Your task to perform on an android device: Go to notification settings Image 0: 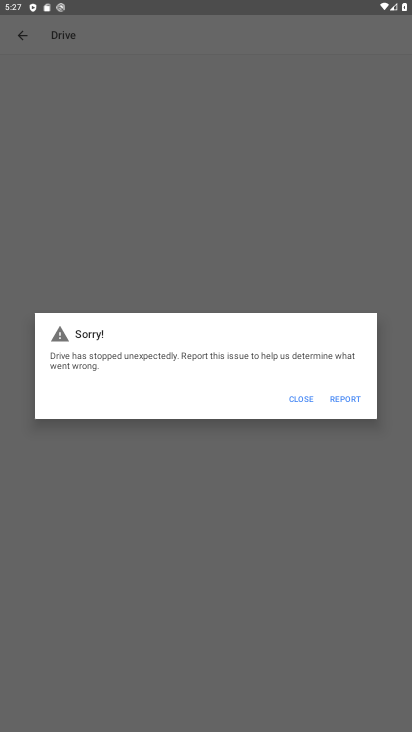
Step 0: press home button
Your task to perform on an android device: Go to notification settings Image 1: 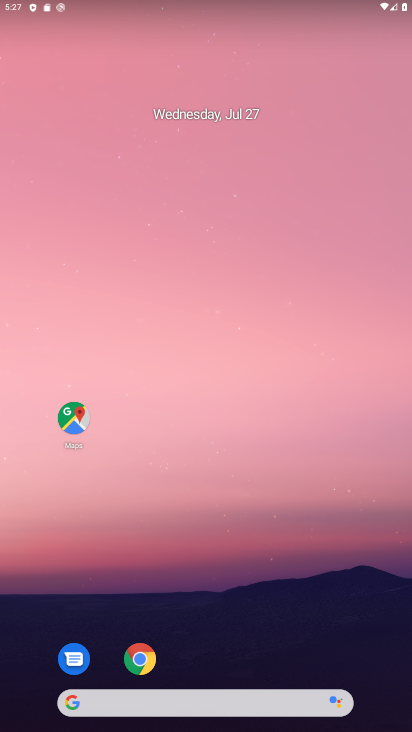
Step 1: drag from (202, 661) to (236, 53)
Your task to perform on an android device: Go to notification settings Image 2: 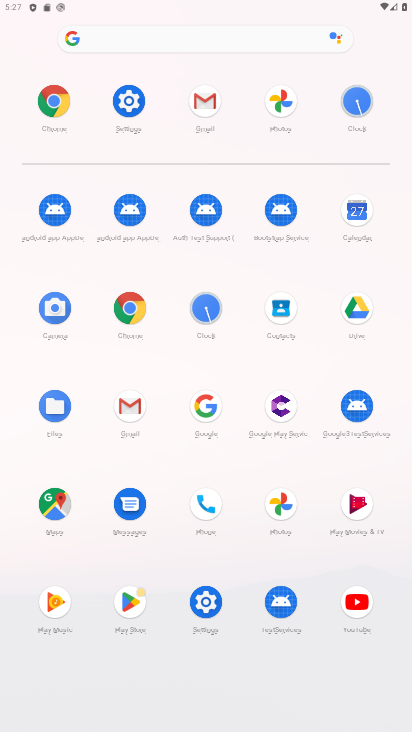
Step 2: click (206, 598)
Your task to perform on an android device: Go to notification settings Image 3: 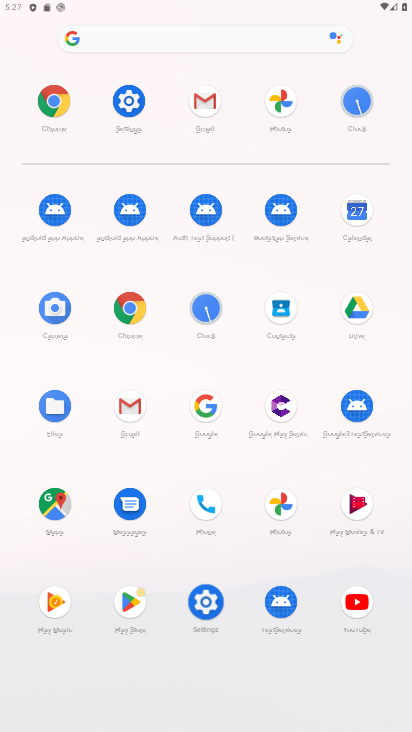
Step 3: click (206, 598)
Your task to perform on an android device: Go to notification settings Image 4: 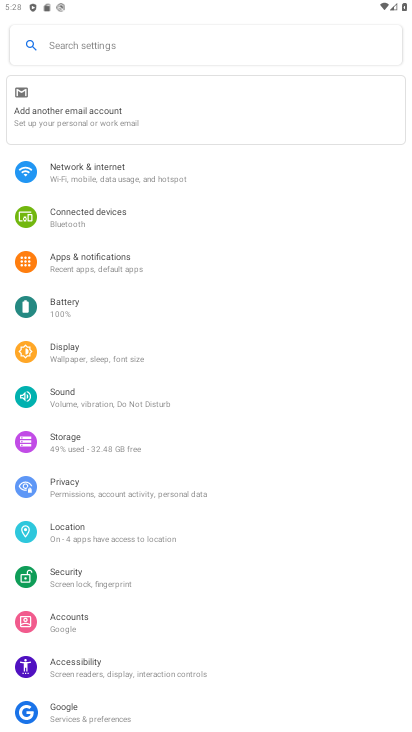
Step 4: click (106, 266)
Your task to perform on an android device: Go to notification settings Image 5: 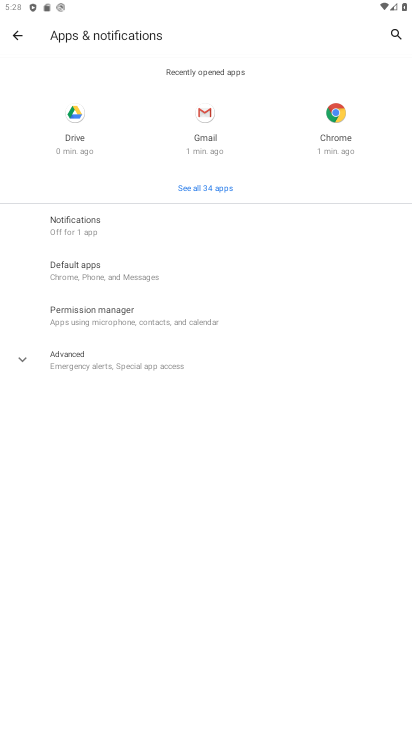
Step 5: click (94, 228)
Your task to perform on an android device: Go to notification settings Image 6: 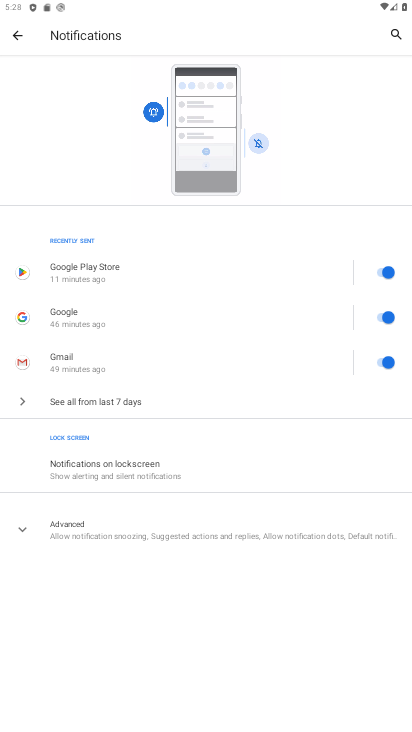
Step 6: task complete